Your task to perform on an android device: move a message to another label in the gmail app Image 0: 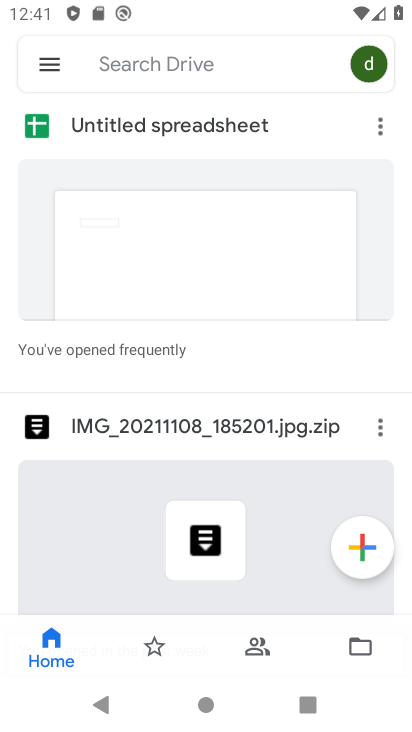
Step 0: press home button
Your task to perform on an android device: move a message to another label in the gmail app Image 1: 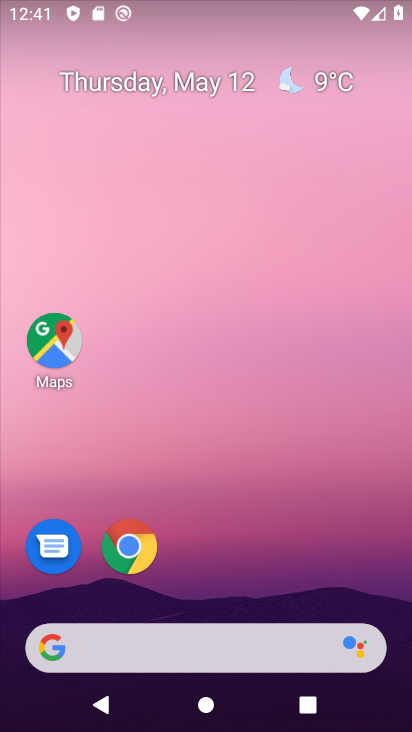
Step 1: drag from (263, 654) to (247, 231)
Your task to perform on an android device: move a message to another label in the gmail app Image 2: 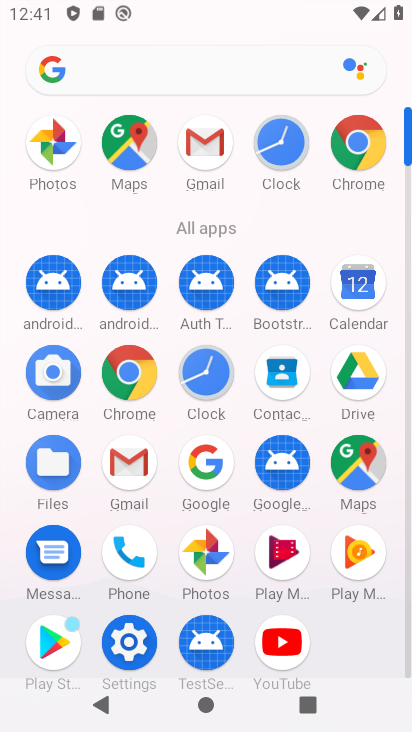
Step 2: click (148, 463)
Your task to perform on an android device: move a message to another label in the gmail app Image 3: 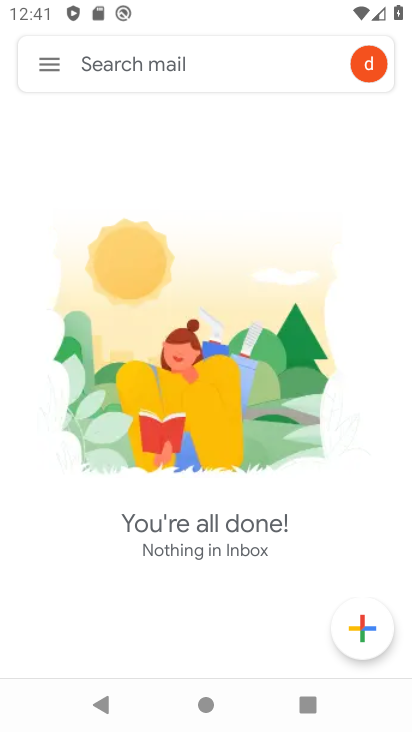
Step 3: click (38, 55)
Your task to perform on an android device: move a message to another label in the gmail app Image 4: 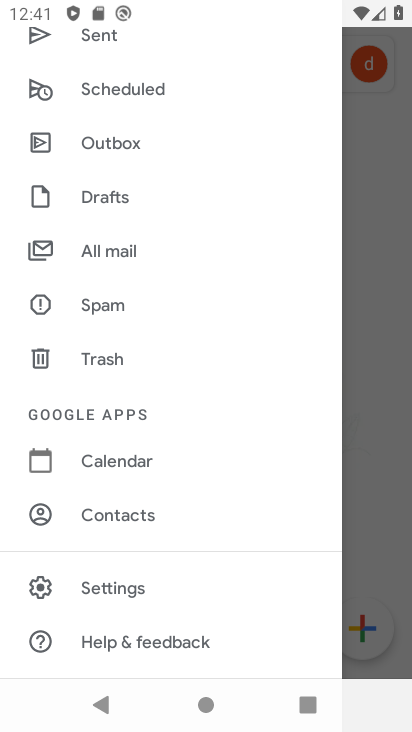
Step 4: click (112, 595)
Your task to perform on an android device: move a message to another label in the gmail app Image 5: 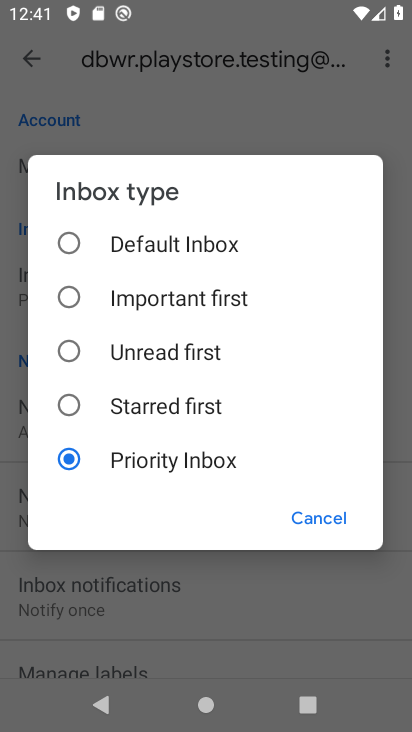
Step 5: click (312, 511)
Your task to perform on an android device: move a message to another label in the gmail app Image 6: 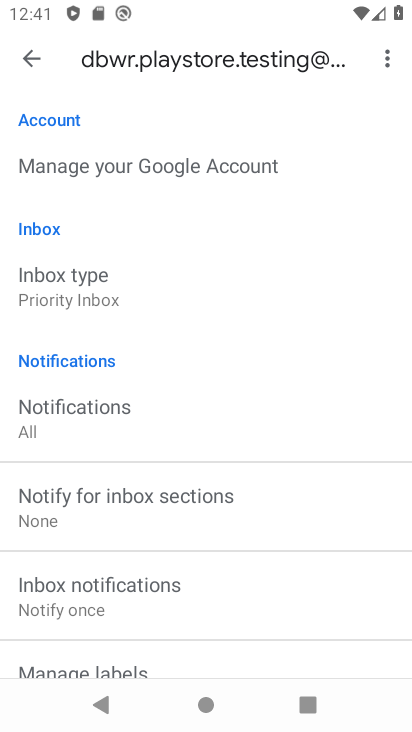
Step 6: click (95, 664)
Your task to perform on an android device: move a message to another label in the gmail app Image 7: 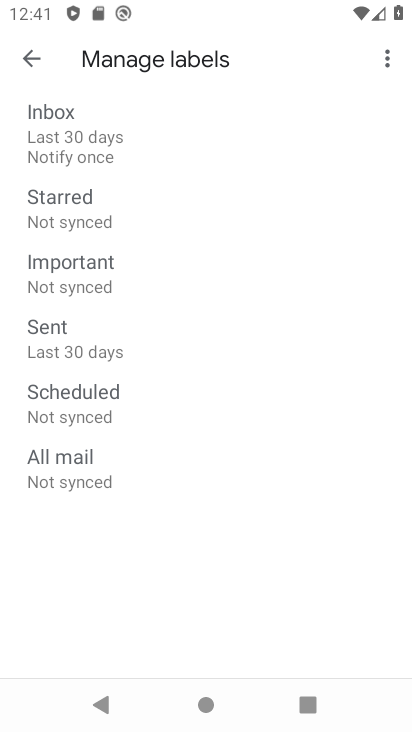
Step 7: click (139, 418)
Your task to perform on an android device: move a message to another label in the gmail app Image 8: 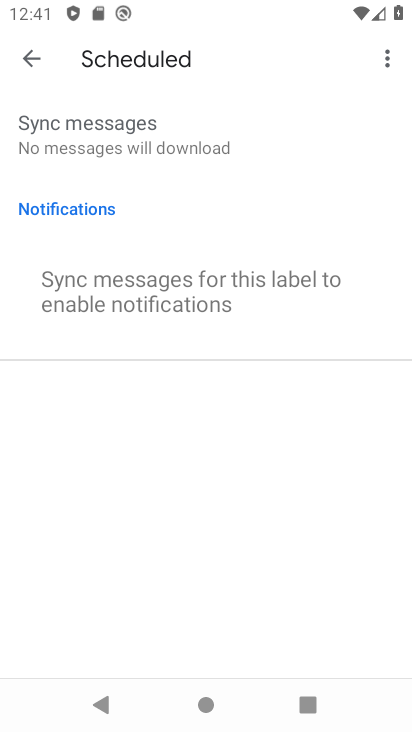
Step 8: task complete